Your task to perform on an android device: Open my contact list Image 0: 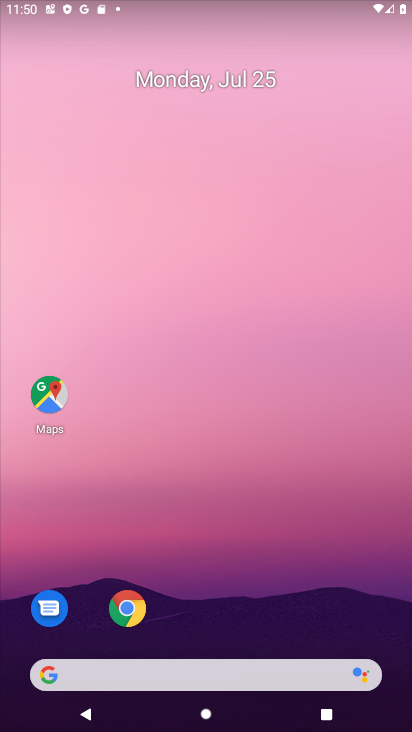
Step 0: drag from (193, 622) to (209, 13)
Your task to perform on an android device: Open my contact list Image 1: 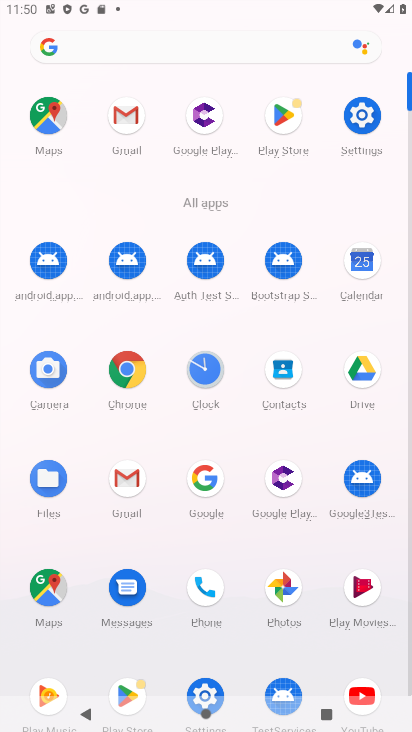
Step 1: click (209, 13)
Your task to perform on an android device: Open my contact list Image 2: 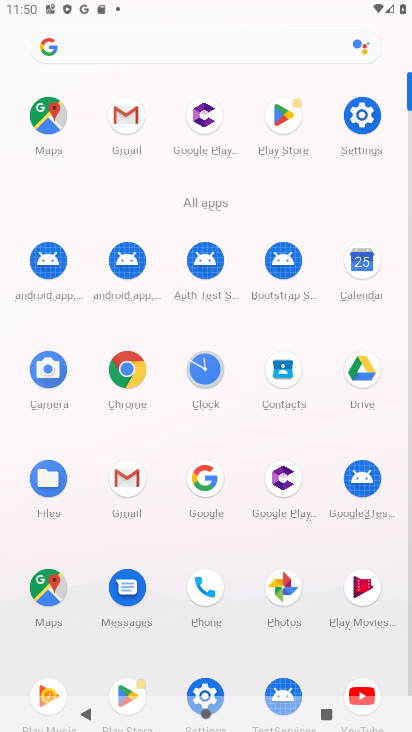
Step 2: click (293, 367)
Your task to perform on an android device: Open my contact list Image 3: 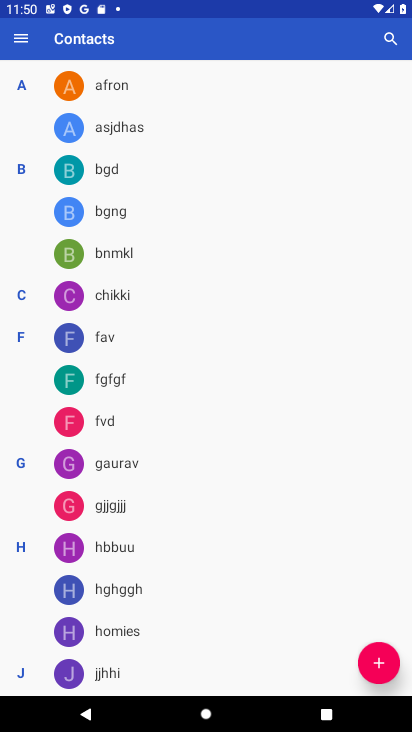
Step 3: task complete